Your task to perform on an android device: see tabs open on other devices in the chrome app Image 0: 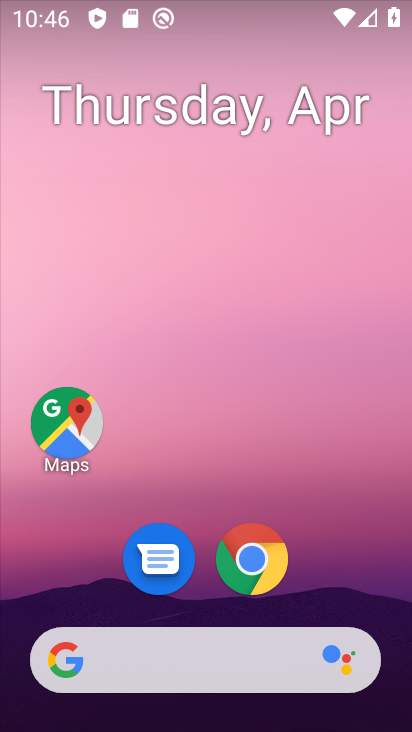
Step 0: drag from (261, 659) to (232, 122)
Your task to perform on an android device: see tabs open on other devices in the chrome app Image 1: 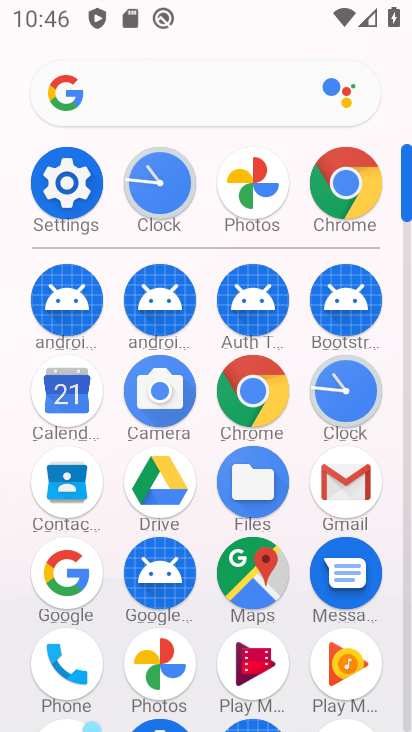
Step 1: click (347, 195)
Your task to perform on an android device: see tabs open on other devices in the chrome app Image 2: 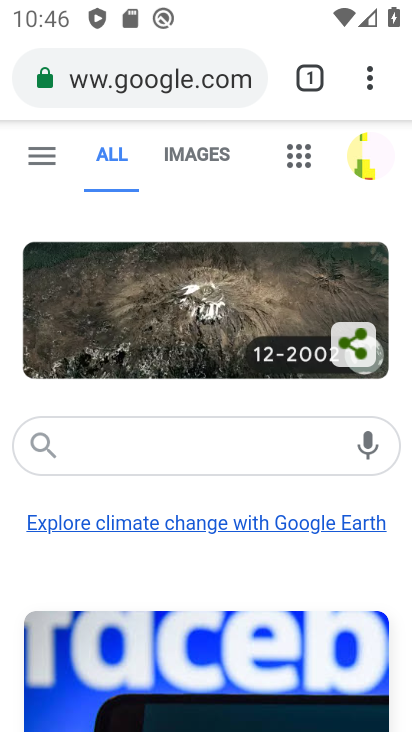
Step 2: click (338, 85)
Your task to perform on an android device: see tabs open on other devices in the chrome app Image 3: 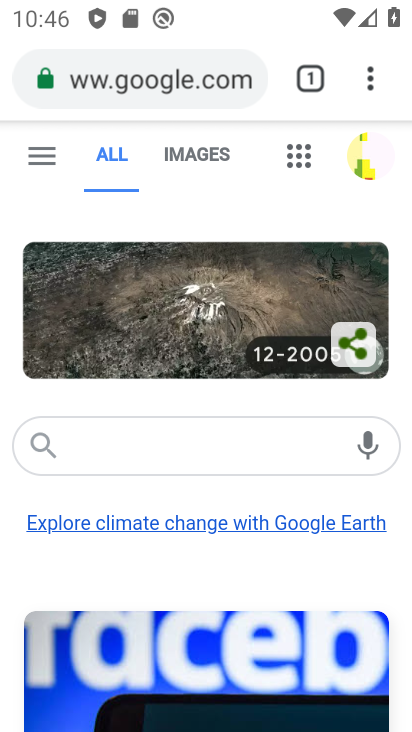
Step 3: click (318, 78)
Your task to perform on an android device: see tabs open on other devices in the chrome app Image 4: 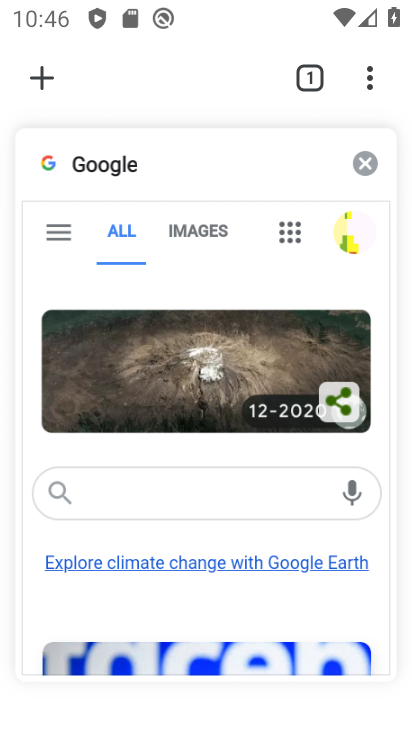
Step 4: click (40, 74)
Your task to perform on an android device: see tabs open on other devices in the chrome app Image 5: 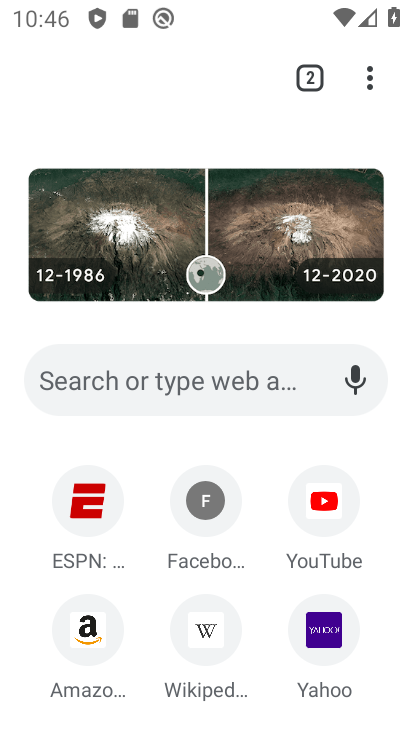
Step 5: task complete